Your task to perform on an android device: open a new tab in the chrome app Image 0: 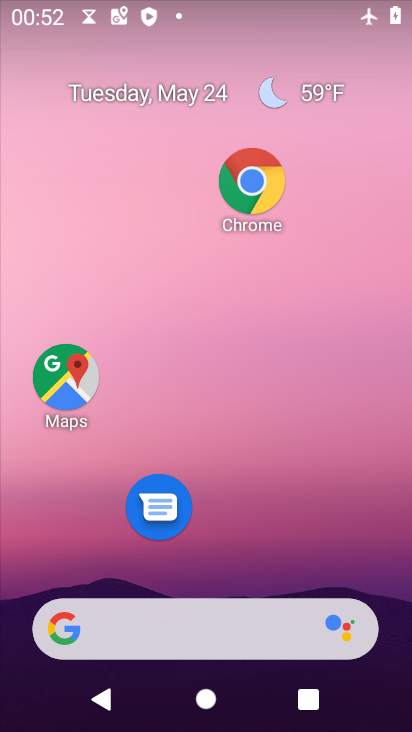
Step 0: drag from (292, 492) to (331, 259)
Your task to perform on an android device: open a new tab in the chrome app Image 1: 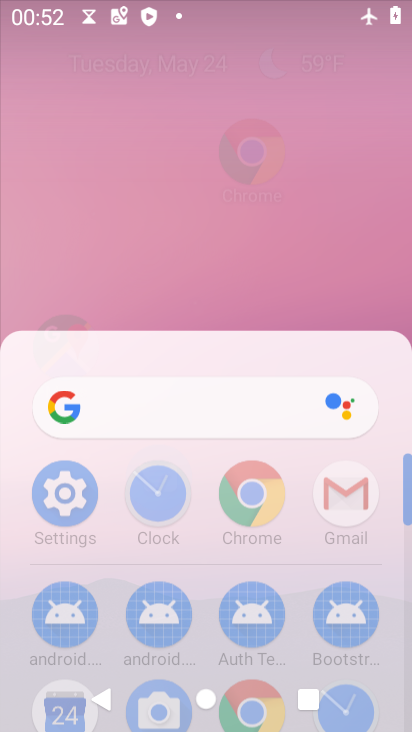
Step 1: drag from (238, 406) to (237, 245)
Your task to perform on an android device: open a new tab in the chrome app Image 2: 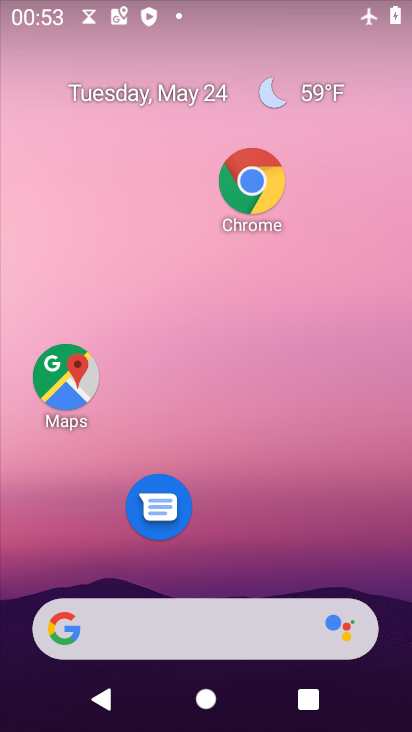
Step 2: drag from (307, 369) to (321, 237)
Your task to perform on an android device: open a new tab in the chrome app Image 3: 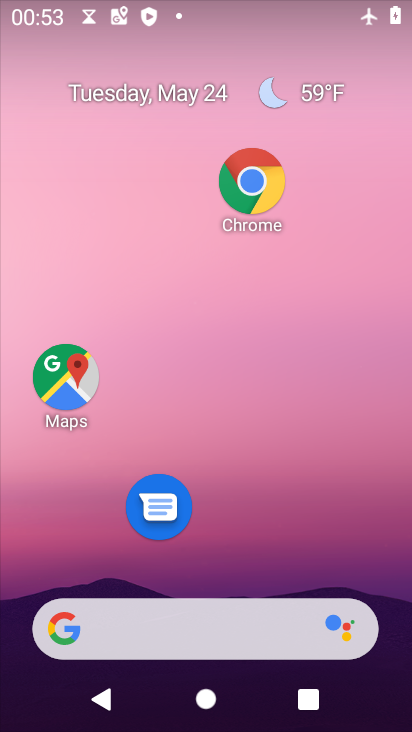
Step 3: drag from (276, 574) to (281, 244)
Your task to perform on an android device: open a new tab in the chrome app Image 4: 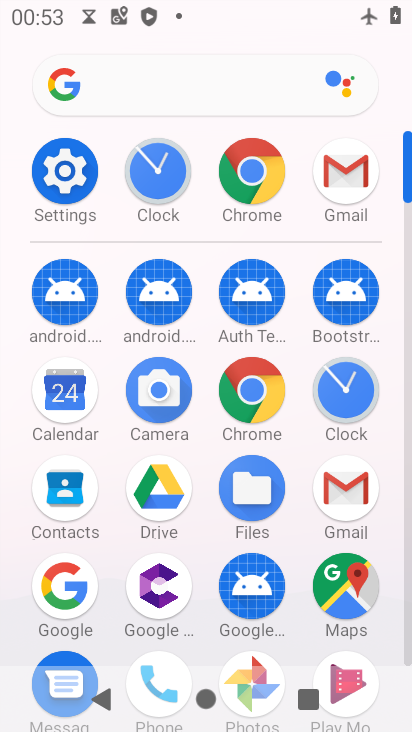
Step 4: click (257, 378)
Your task to perform on an android device: open a new tab in the chrome app Image 5: 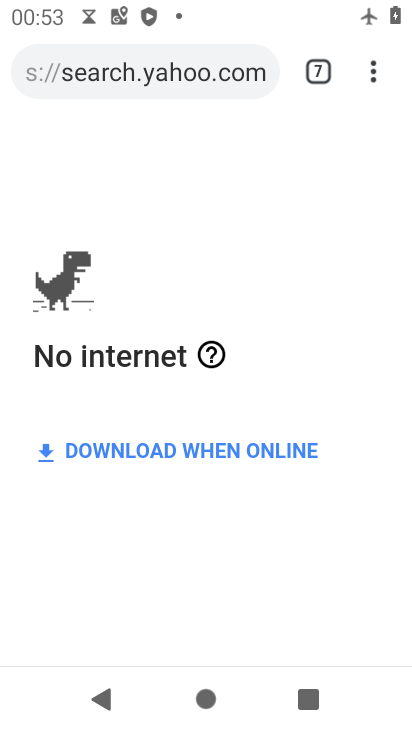
Step 5: click (363, 64)
Your task to perform on an android device: open a new tab in the chrome app Image 6: 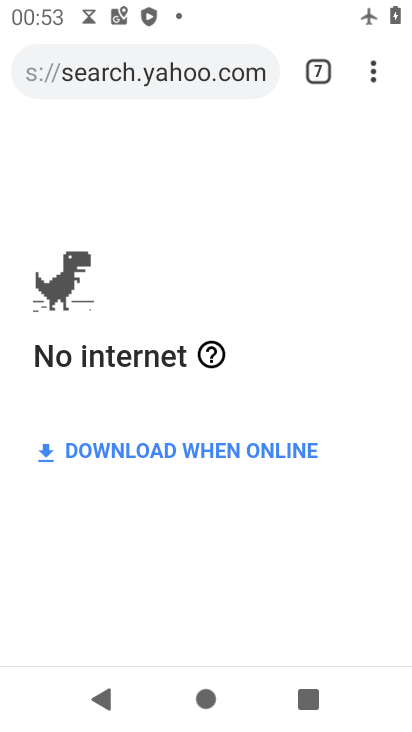
Step 6: click (386, 68)
Your task to perform on an android device: open a new tab in the chrome app Image 7: 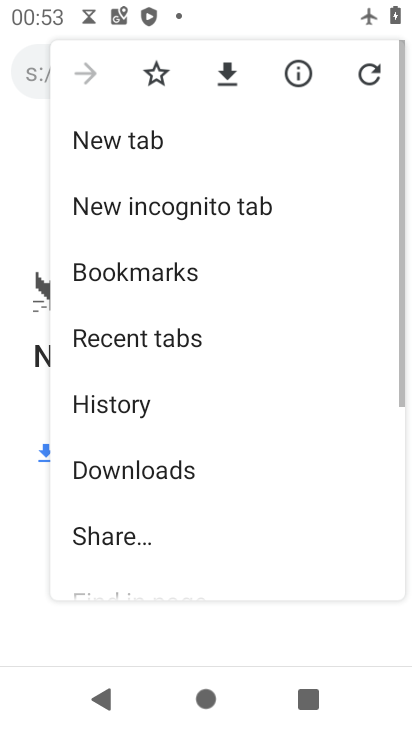
Step 7: click (204, 138)
Your task to perform on an android device: open a new tab in the chrome app Image 8: 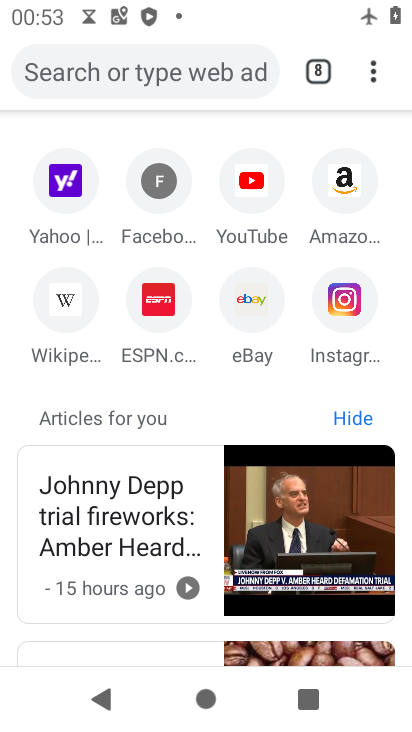
Step 8: task complete